Your task to perform on an android device: Do I have any events today? Image 0: 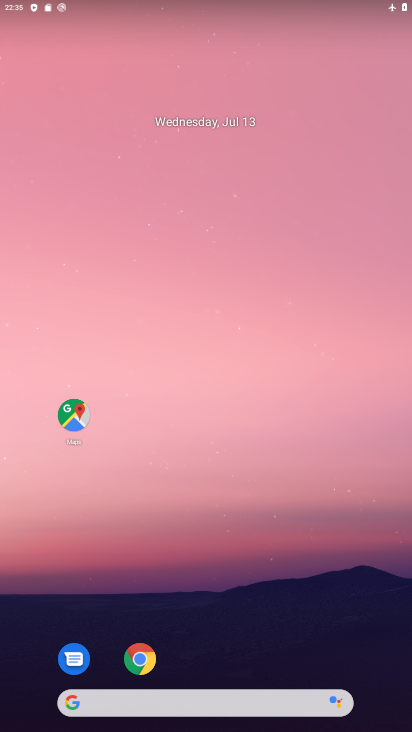
Step 0: drag from (367, 665) to (299, 148)
Your task to perform on an android device: Do I have any events today? Image 1: 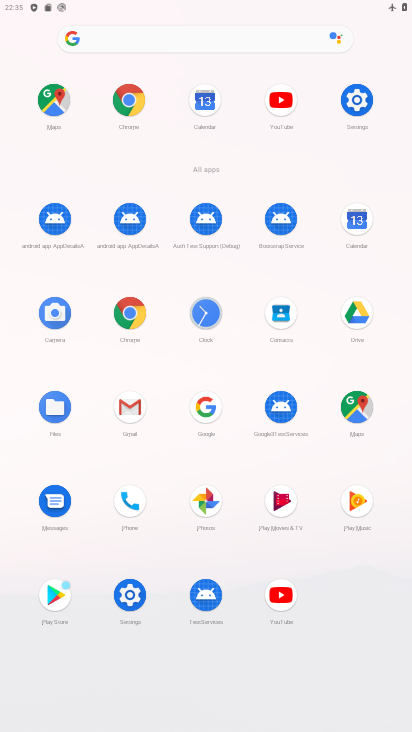
Step 1: click (356, 219)
Your task to perform on an android device: Do I have any events today? Image 2: 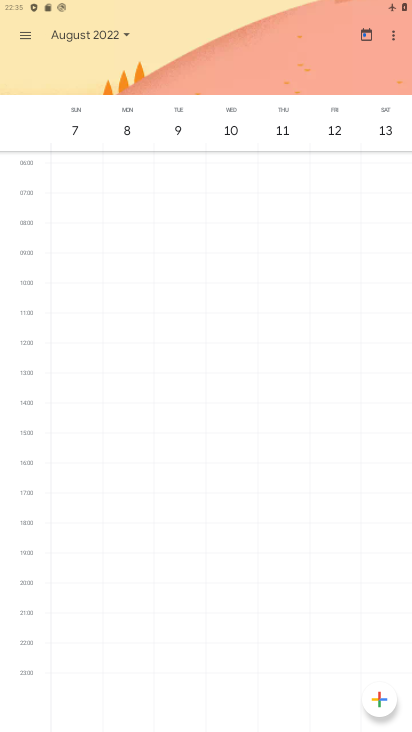
Step 2: click (20, 38)
Your task to perform on an android device: Do I have any events today? Image 3: 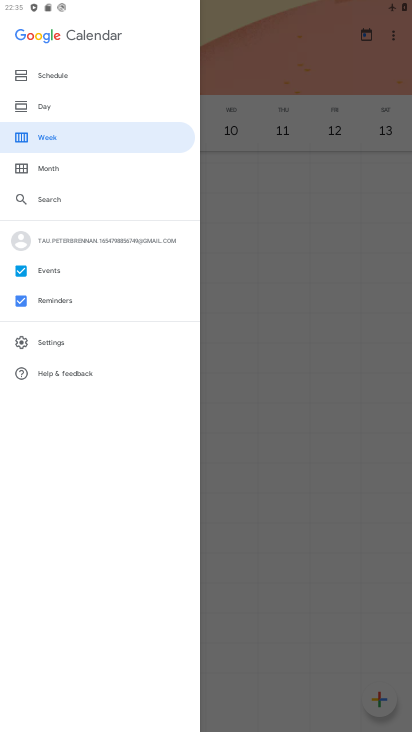
Step 3: click (42, 107)
Your task to perform on an android device: Do I have any events today? Image 4: 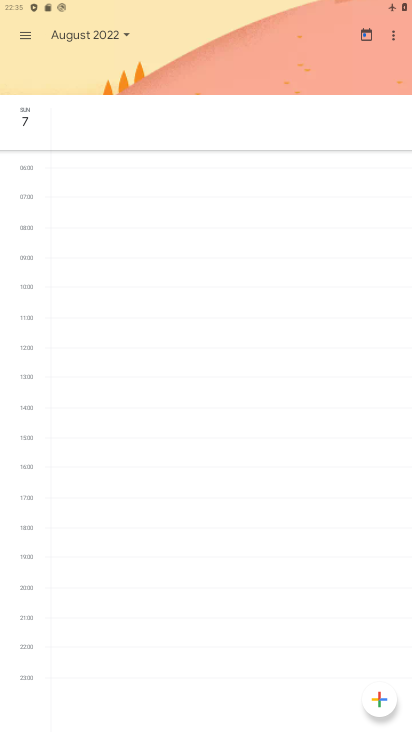
Step 4: click (126, 31)
Your task to perform on an android device: Do I have any events today? Image 5: 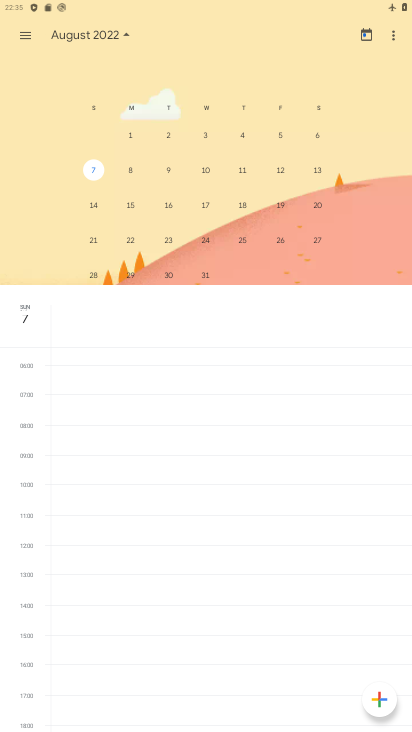
Step 5: drag from (92, 206) to (373, 216)
Your task to perform on an android device: Do I have any events today? Image 6: 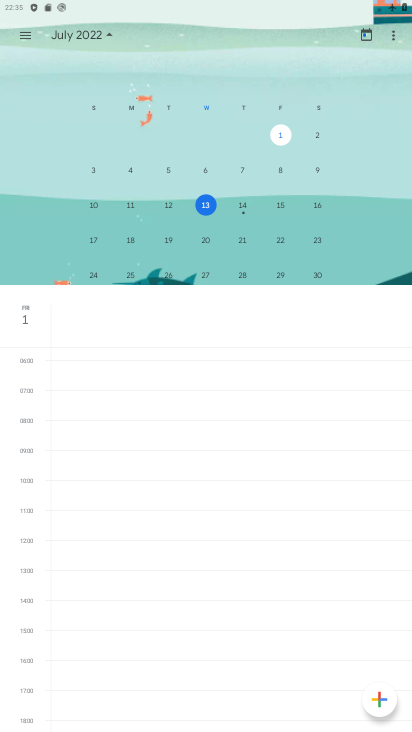
Step 6: click (205, 208)
Your task to perform on an android device: Do I have any events today? Image 7: 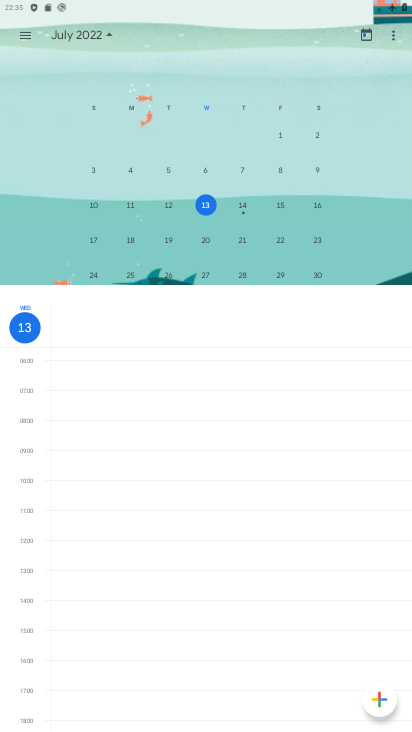
Step 7: task complete